Your task to perform on an android device: What's the weather going to be this weekend? Image 0: 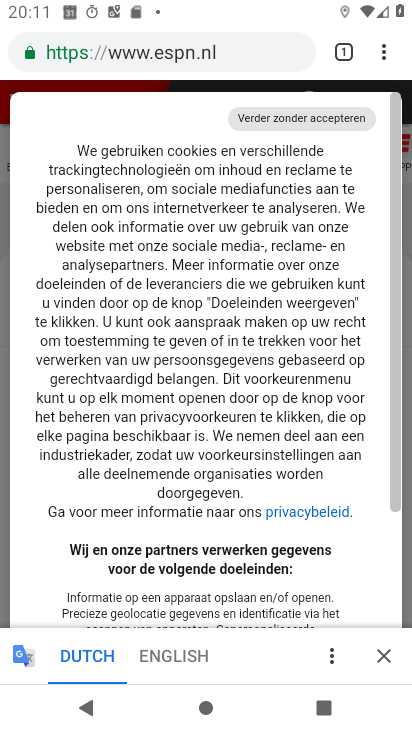
Step 0: press home button
Your task to perform on an android device: What's the weather going to be this weekend? Image 1: 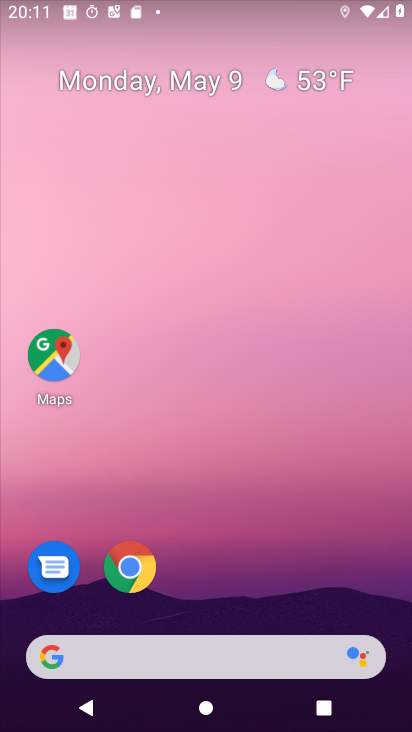
Step 1: drag from (211, 583) to (69, 8)
Your task to perform on an android device: What's the weather going to be this weekend? Image 2: 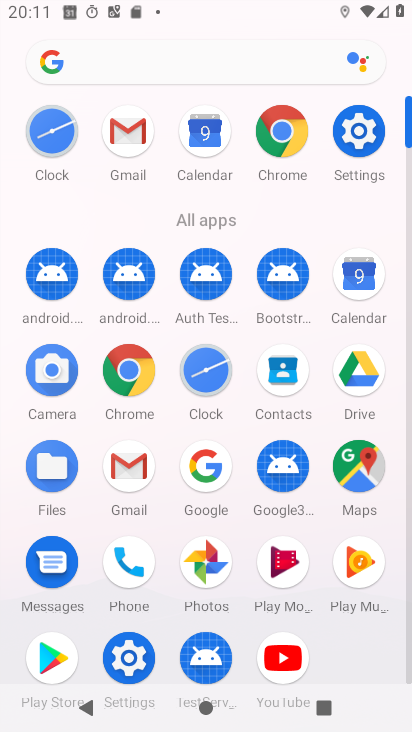
Step 2: click (116, 54)
Your task to perform on an android device: What's the weather going to be this weekend? Image 3: 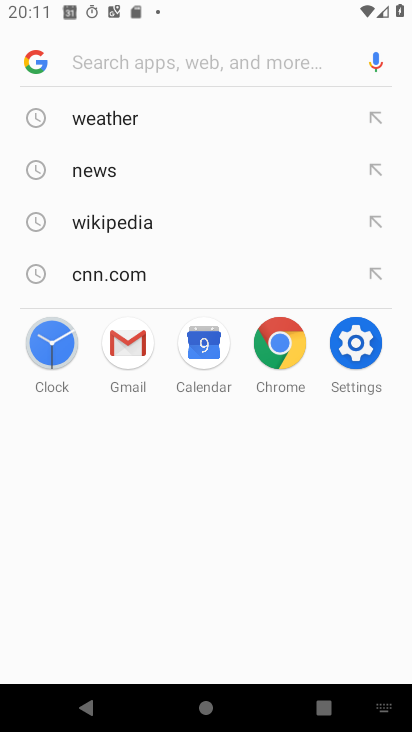
Step 3: type "what's the weather going to be this weekend"
Your task to perform on an android device: What's the weather going to be this weekend? Image 4: 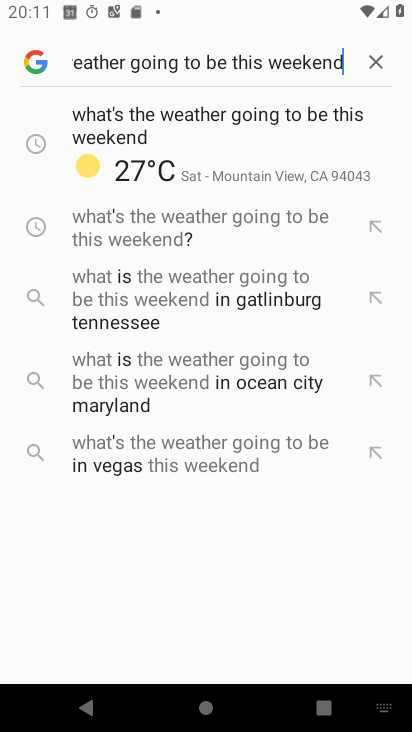
Step 4: click (266, 163)
Your task to perform on an android device: What's the weather going to be this weekend? Image 5: 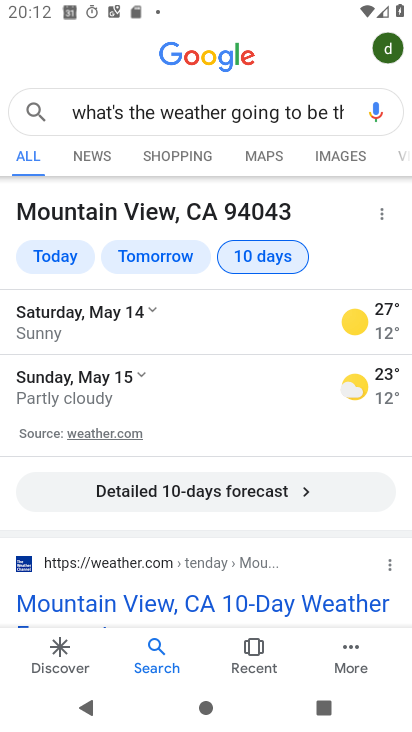
Step 5: task complete